Your task to perform on an android device: turn off picture-in-picture Image 0: 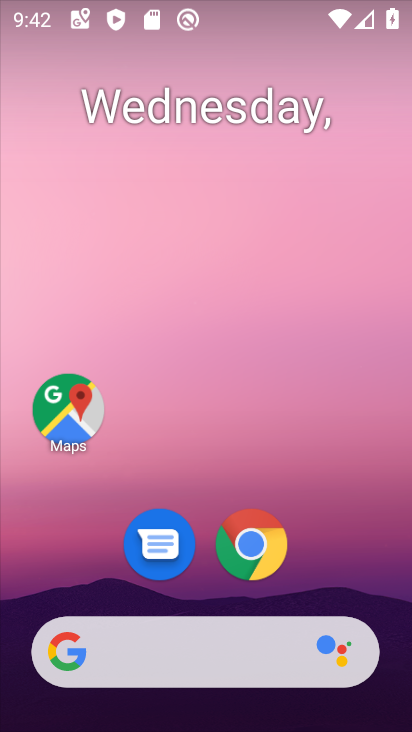
Step 0: click (252, 549)
Your task to perform on an android device: turn off picture-in-picture Image 1: 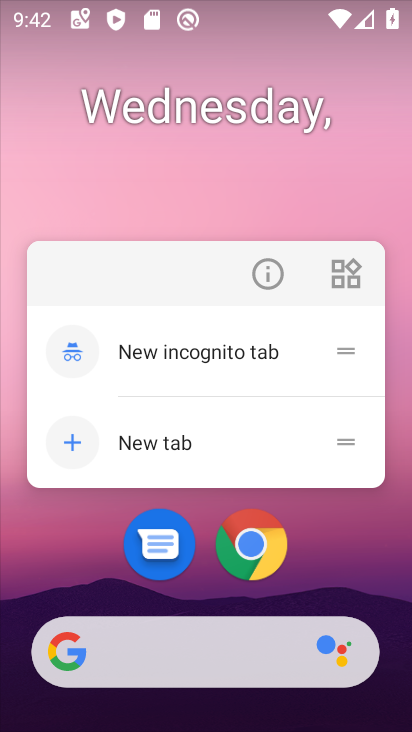
Step 1: click (269, 263)
Your task to perform on an android device: turn off picture-in-picture Image 2: 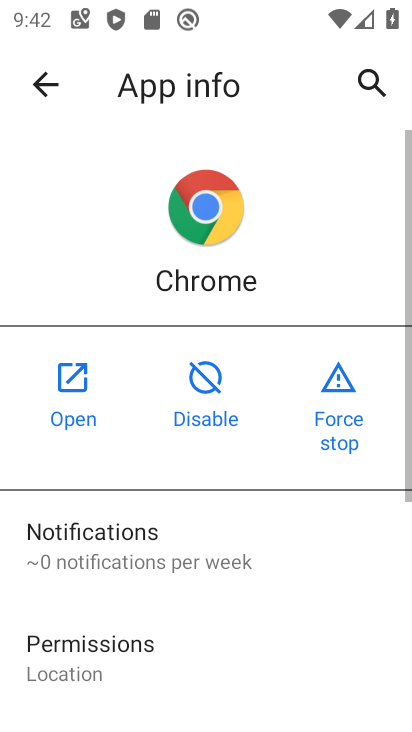
Step 2: drag from (202, 515) to (224, 73)
Your task to perform on an android device: turn off picture-in-picture Image 3: 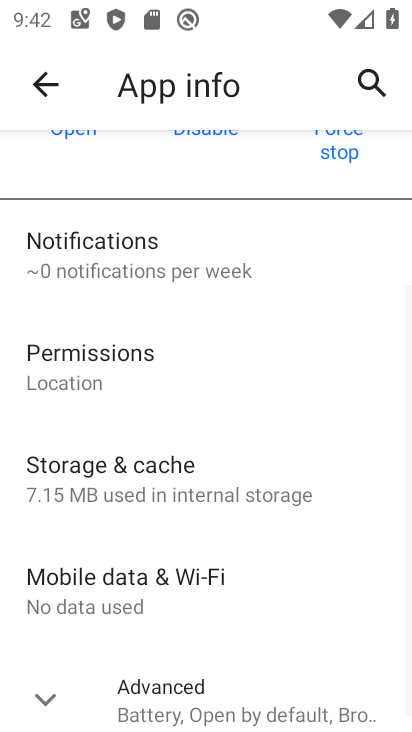
Step 3: drag from (190, 495) to (190, 105)
Your task to perform on an android device: turn off picture-in-picture Image 4: 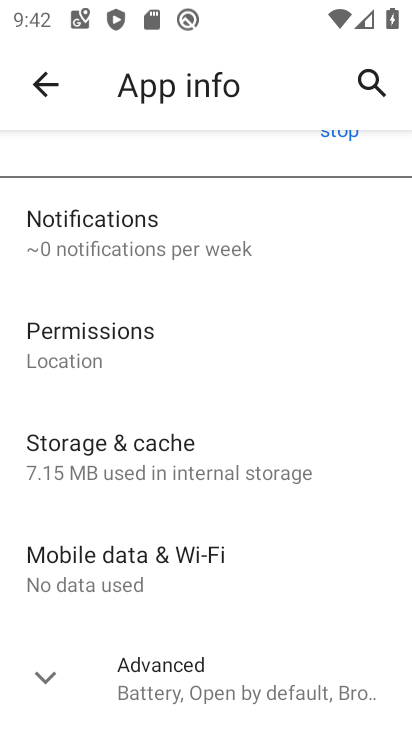
Step 4: click (46, 691)
Your task to perform on an android device: turn off picture-in-picture Image 5: 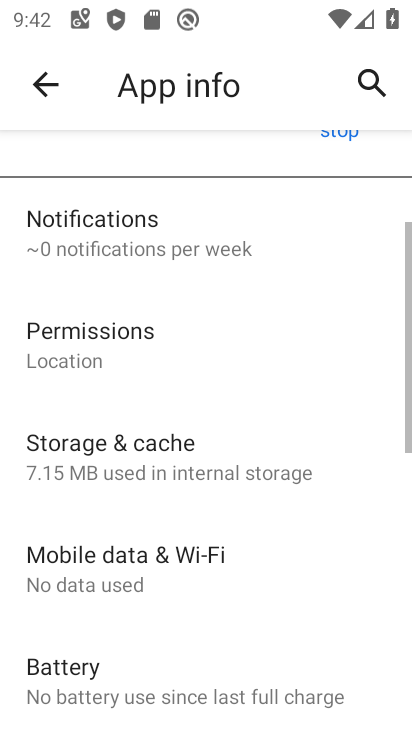
Step 5: drag from (143, 685) to (166, 167)
Your task to perform on an android device: turn off picture-in-picture Image 6: 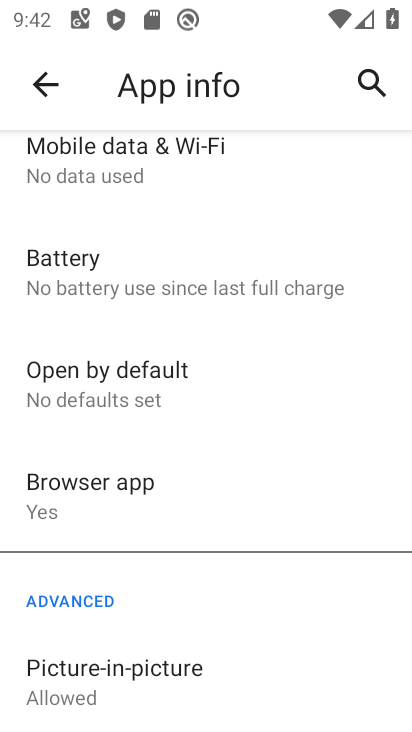
Step 6: drag from (192, 526) to (187, 149)
Your task to perform on an android device: turn off picture-in-picture Image 7: 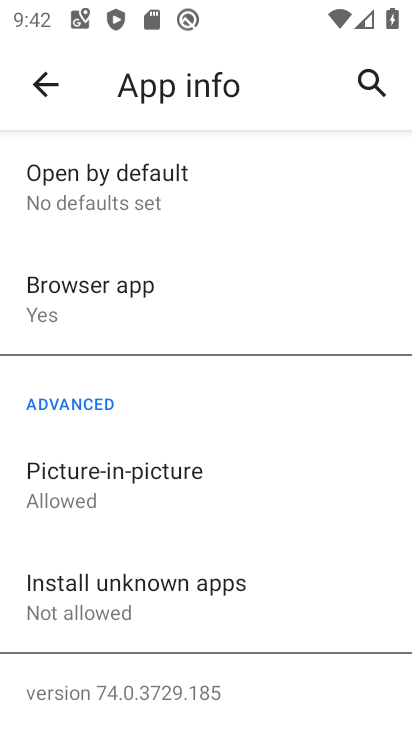
Step 7: click (84, 492)
Your task to perform on an android device: turn off picture-in-picture Image 8: 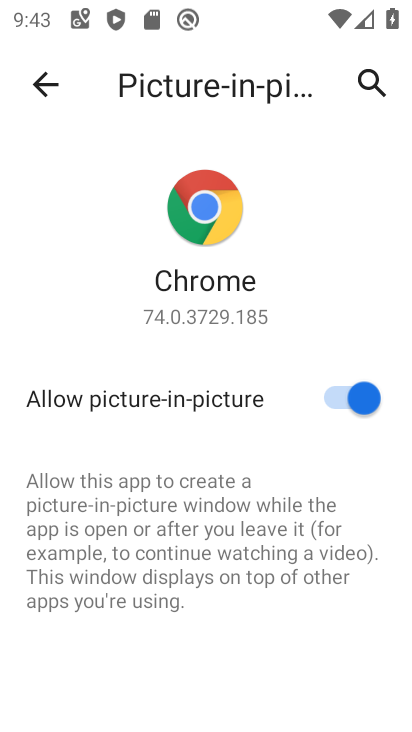
Step 8: click (350, 408)
Your task to perform on an android device: turn off picture-in-picture Image 9: 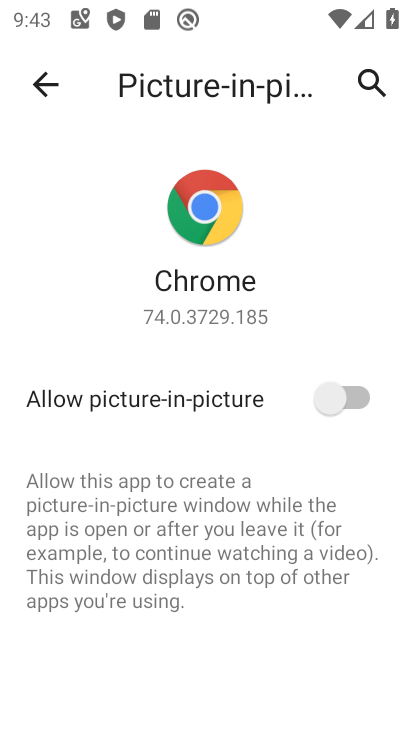
Step 9: task complete